Your task to perform on an android device: Open Youtube and go to the subscriptions tab Image 0: 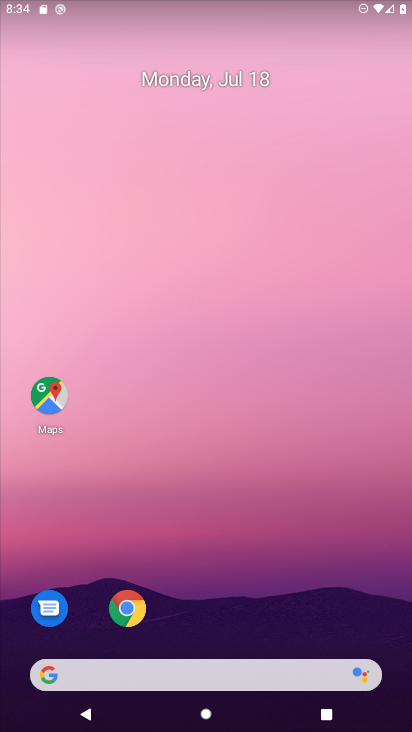
Step 0: drag from (270, 609) to (229, 72)
Your task to perform on an android device: Open Youtube and go to the subscriptions tab Image 1: 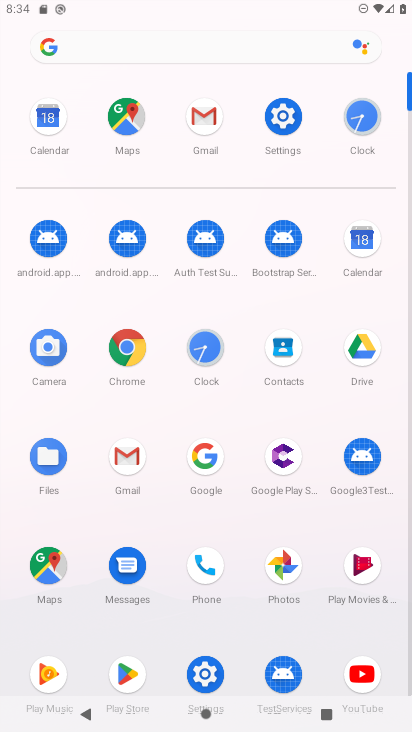
Step 1: click (358, 669)
Your task to perform on an android device: Open Youtube and go to the subscriptions tab Image 2: 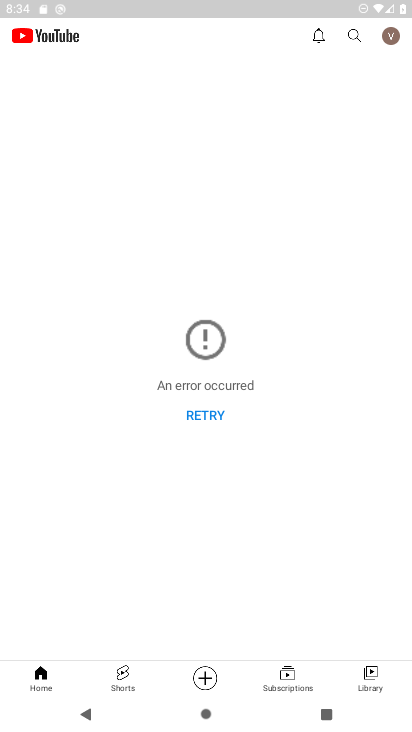
Step 2: click (292, 675)
Your task to perform on an android device: Open Youtube and go to the subscriptions tab Image 3: 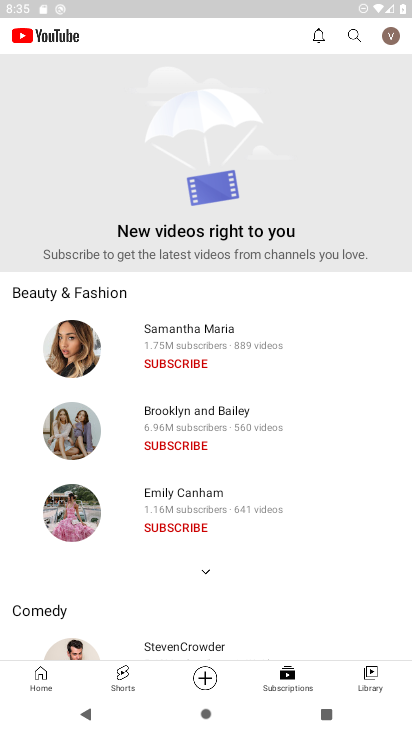
Step 3: task complete